Your task to perform on an android device: Open Amazon Image 0: 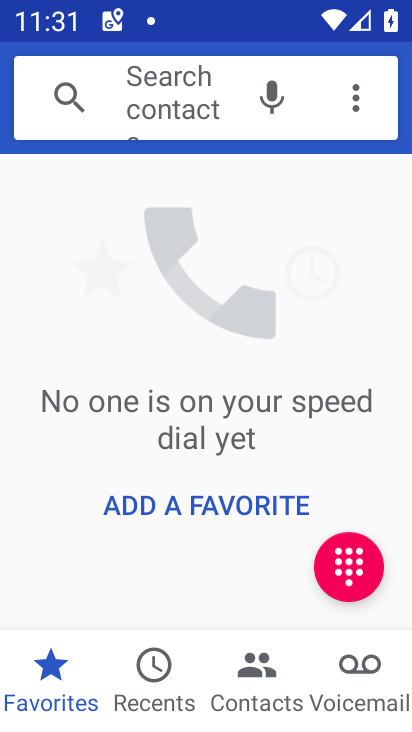
Step 0: press home button
Your task to perform on an android device: Open Amazon Image 1: 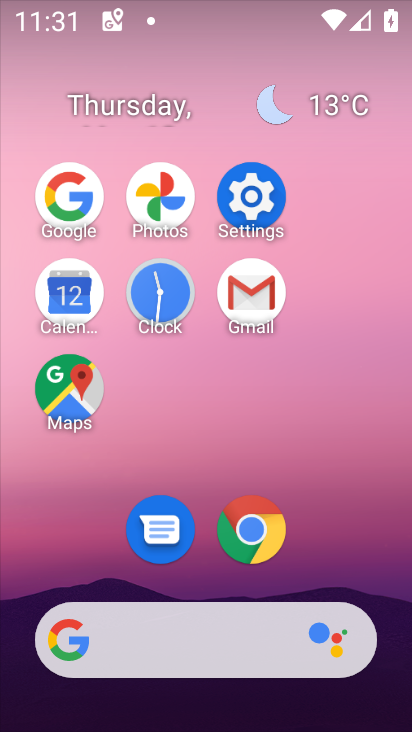
Step 1: click (257, 532)
Your task to perform on an android device: Open Amazon Image 2: 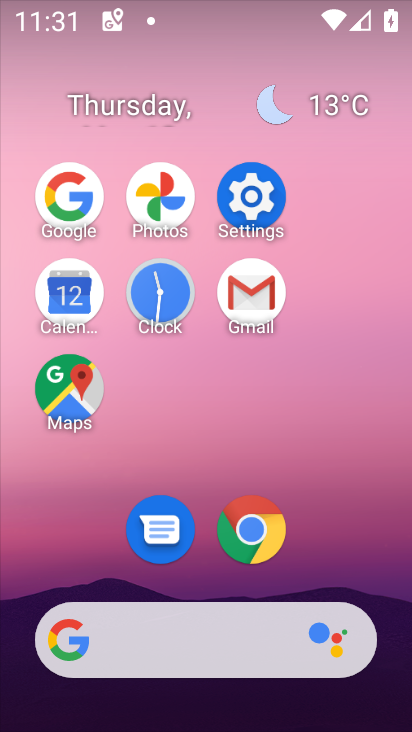
Step 2: click (245, 524)
Your task to perform on an android device: Open Amazon Image 3: 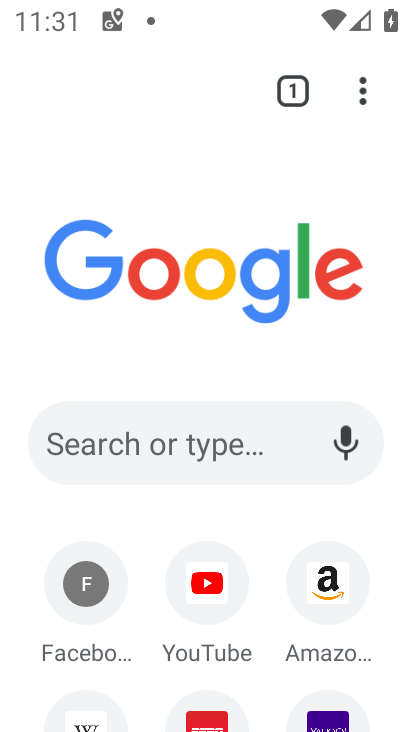
Step 3: click (312, 573)
Your task to perform on an android device: Open Amazon Image 4: 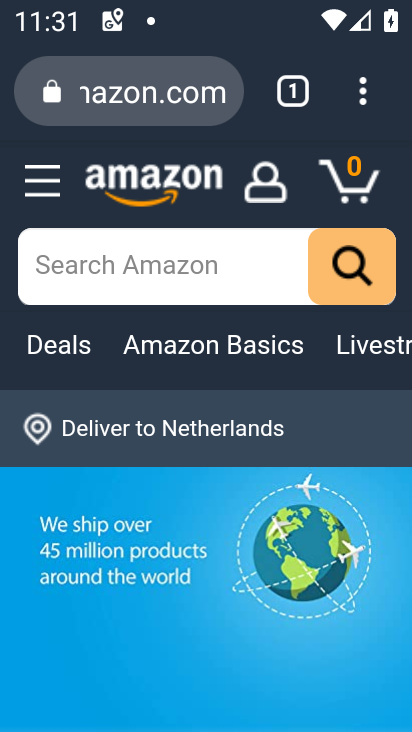
Step 4: task complete